Your task to perform on an android device: Open sound settings Image 0: 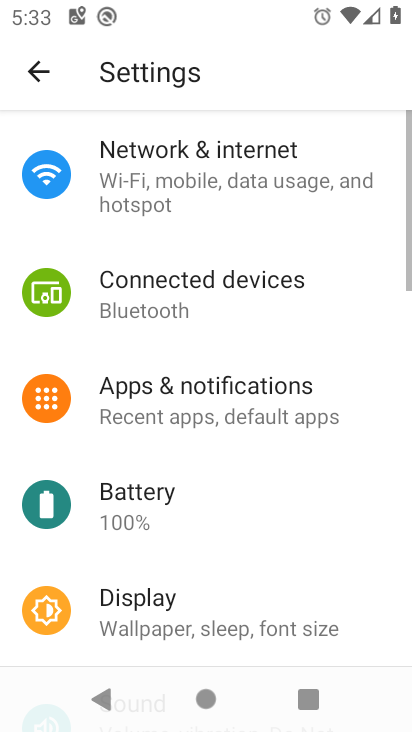
Step 0: press home button
Your task to perform on an android device: Open sound settings Image 1: 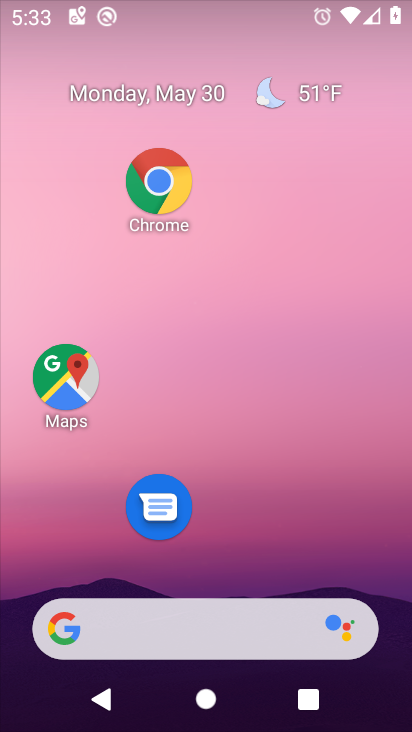
Step 1: drag from (283, 538) to (270, 51)
Your task to perform on an android device: Open sound settings Image 2: 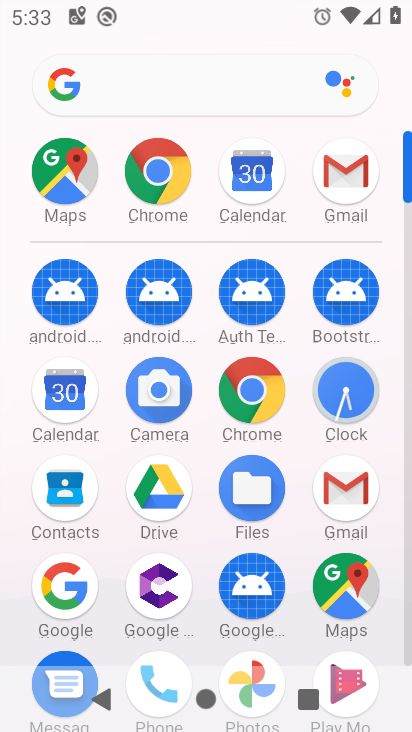
Step 2: click (403, 615)
Your task to perform on an android device: Open sound settings Image 3: 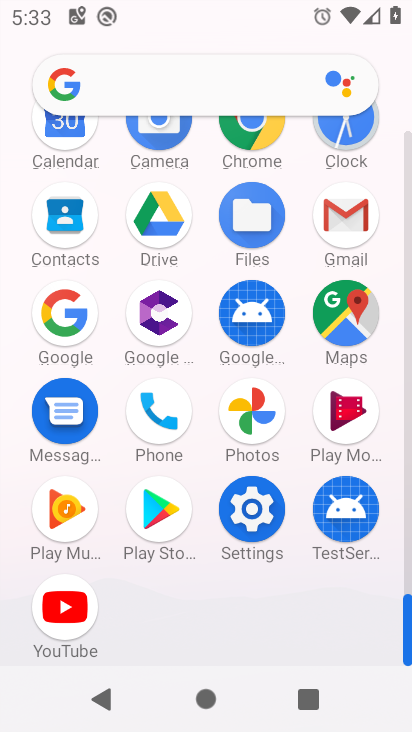
Step 3: click (244, 517)
Your task to perform on an android device: Open sound settings Image 4: 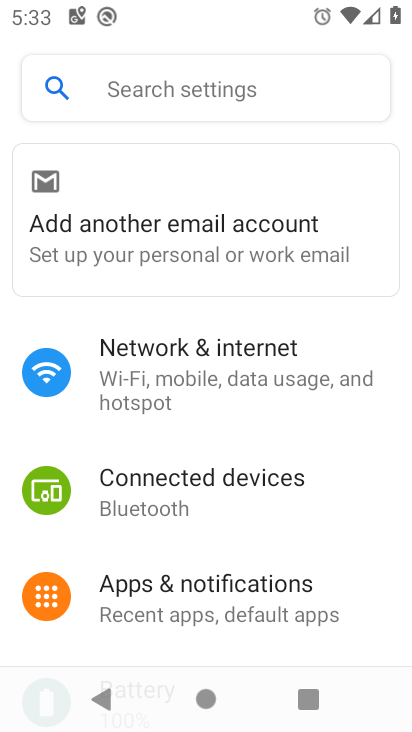
Step 4: drag from (228, 389) to (98, 111)
Your task to perform on an android device: Open sound settings Image 5: 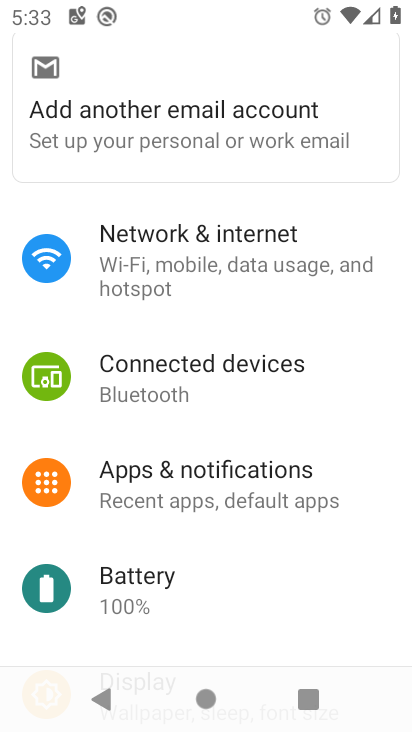
Step 5: drag from (172, 546) to (123, 354)
Your task to perform on an android device: Open sound settings Image 6: 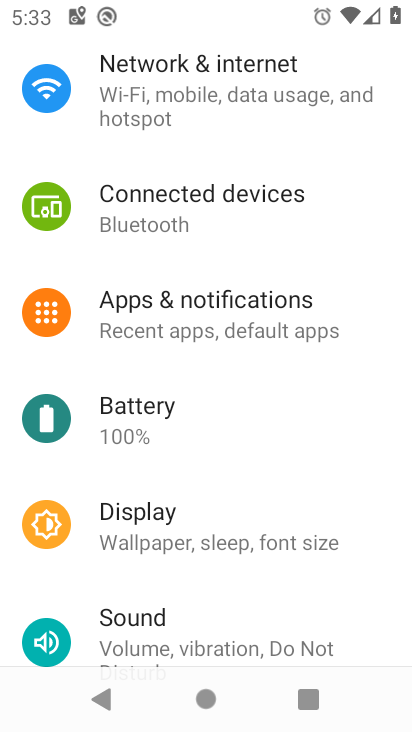
Step 6: click (146, 620)
Your task to perform on an android device: Open sound settings Image 7: 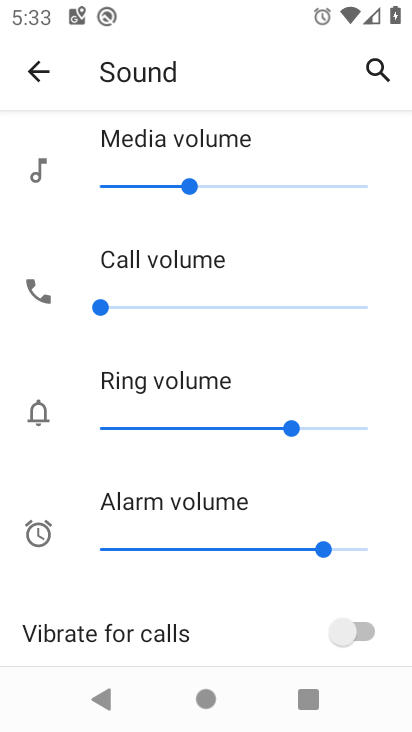
Step 7: task complete